Your task to perform on an android device: refresh tabs in the chrome app Image 0: 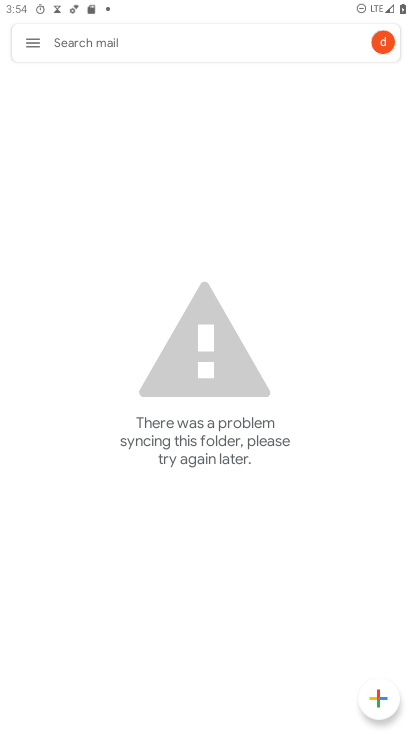
Step 0: press home button
Your task to perform on an android device: refresh tabs in the chrome app Image 1: 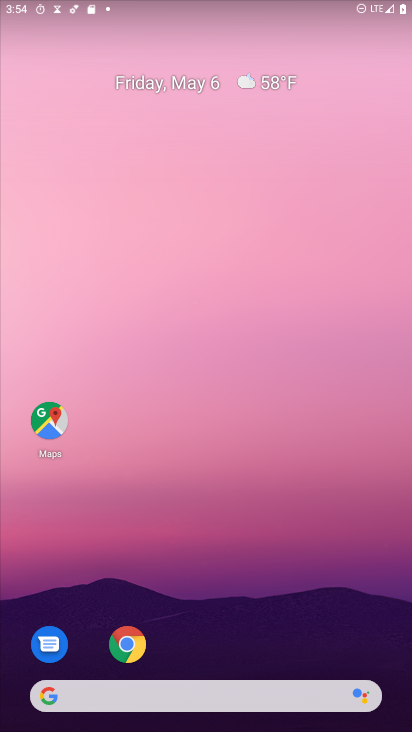
Step 1: drag from (199, 624) to (199, 228)
Your task to perform on an android device: refresh tabs in the chrome app Image 2: 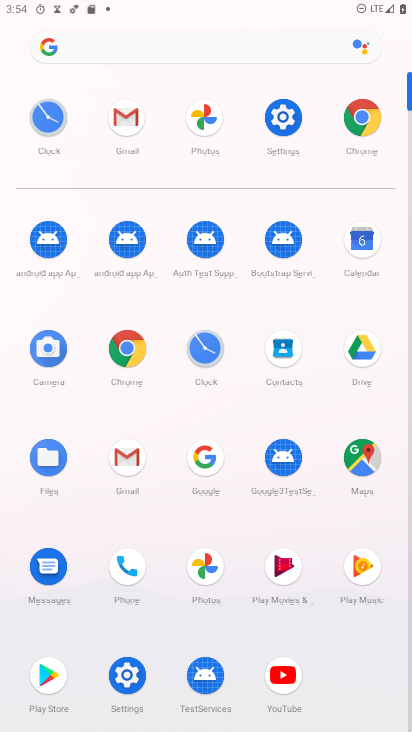
Step 2: click (364, 117)
Your task to perform on an android device: refresh tabs in the chrome app Image 3: 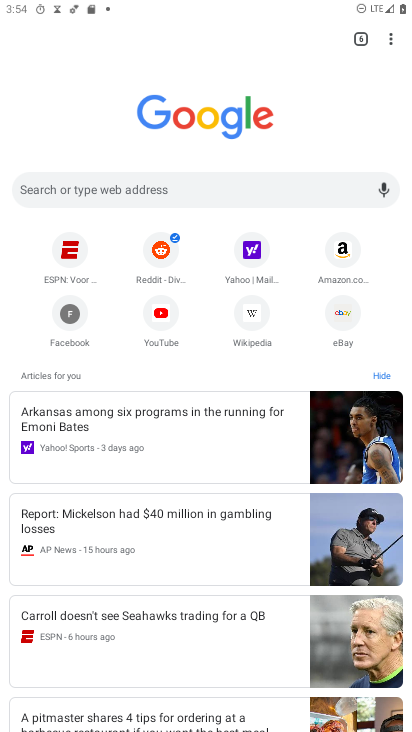
Step 3: click (392, 42)
Your task to perform on an android device: refresh tabs in the chrome app Image 4: 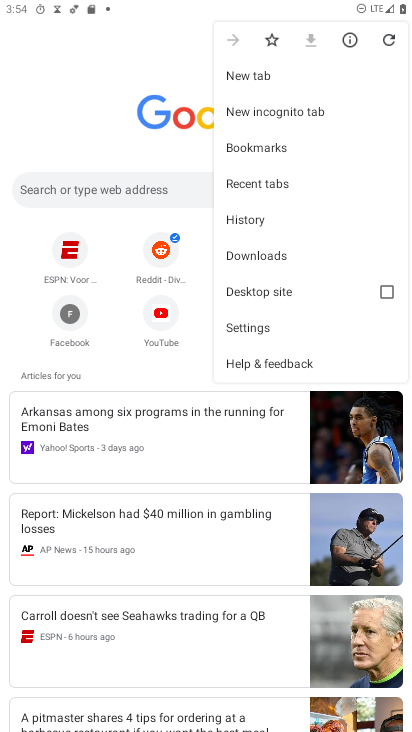
Step 4: click (392, 37)
Your task to perform on an android device: refresh tabs in the chrome app Image 5: 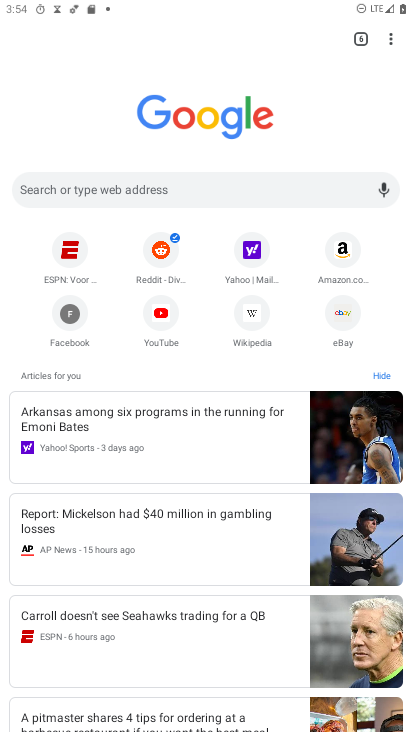
Step 5: task complete